Your task to perform on an android device: check android version Image 0: 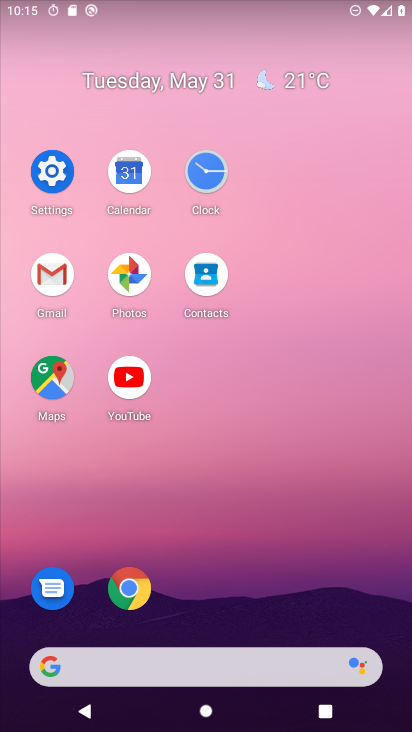
Step 0: click (55, 177)
Your task to perform on an android device: check android version Image 1: 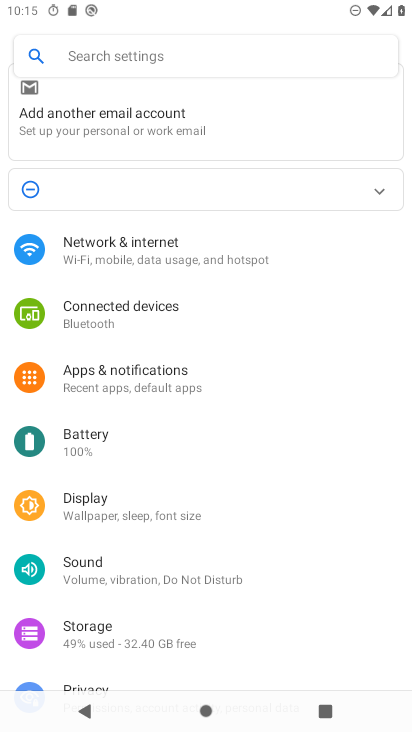
Step 1: drag from (201, 641) to (218, 259)
Your task to perform on an android device: check android version Image 2: 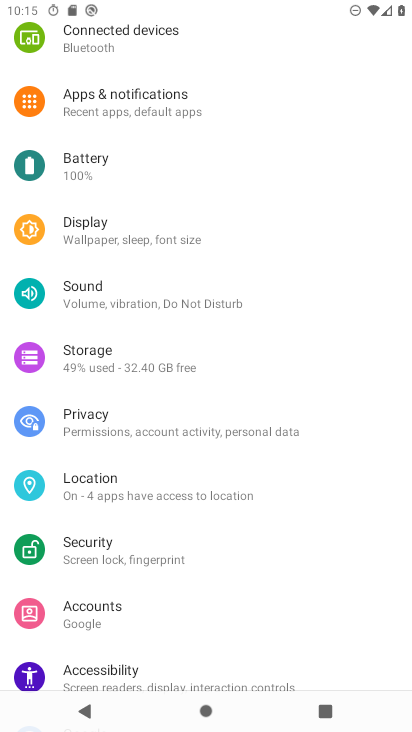
Step 2: drag from (244, 583) to (250, 180)
Your task to perform on an android device: check android version Image 3: 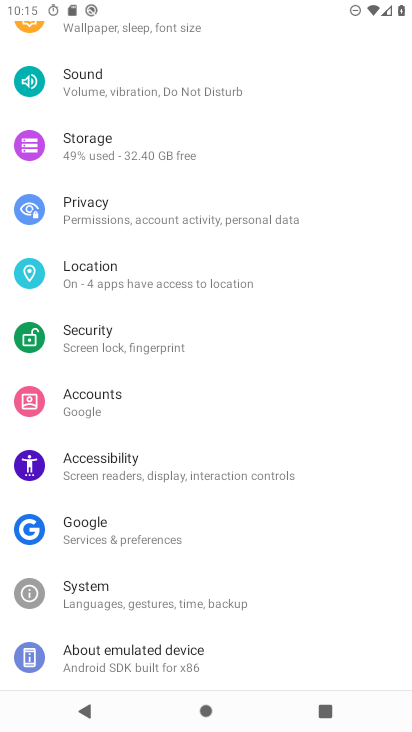
Step 3: drag from (226, 633) to (230, 265)
Your task to perform on an android device: check android version Image 4: 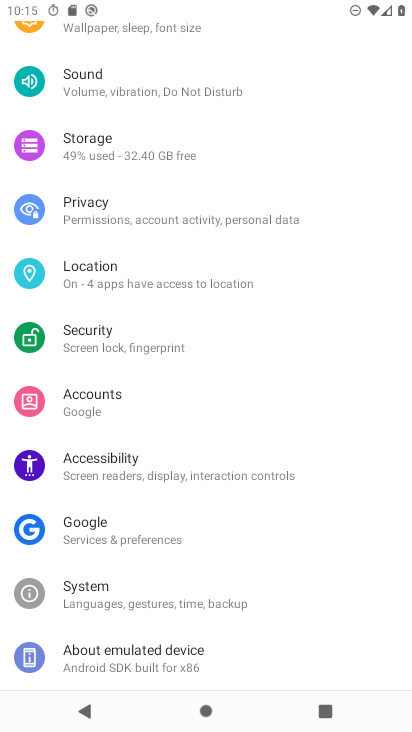
Step 4: click (162, 678)
Your task to perform on an android device: check android version Image 5: 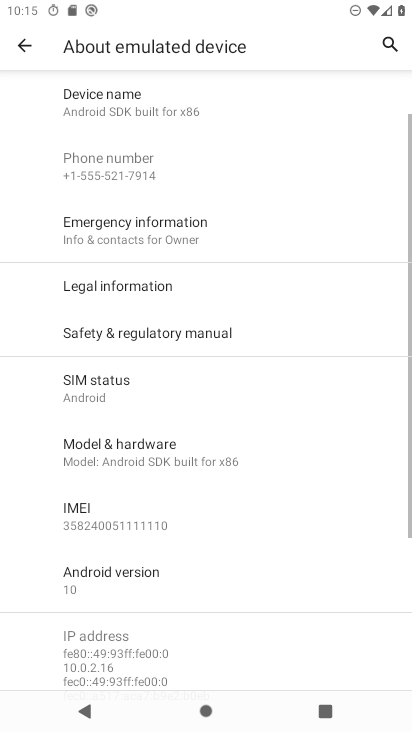
Step 5: click (150, 581)
Your task to perform on an android device: check android version Image 6: 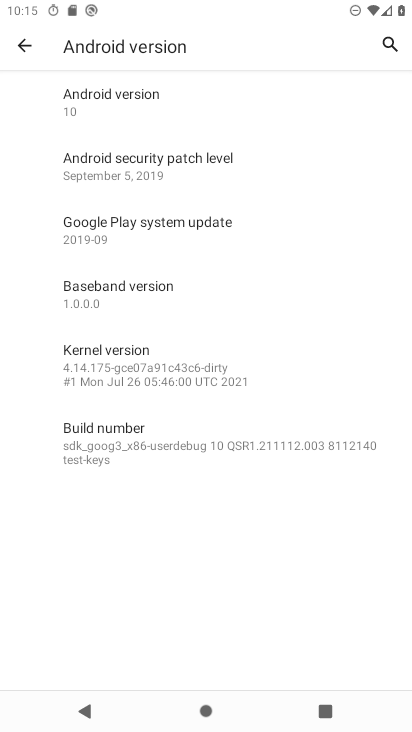
Step 6: task complete